Your task to perform on an android device: Search for vegetarian restaurants on Maps Image 0: 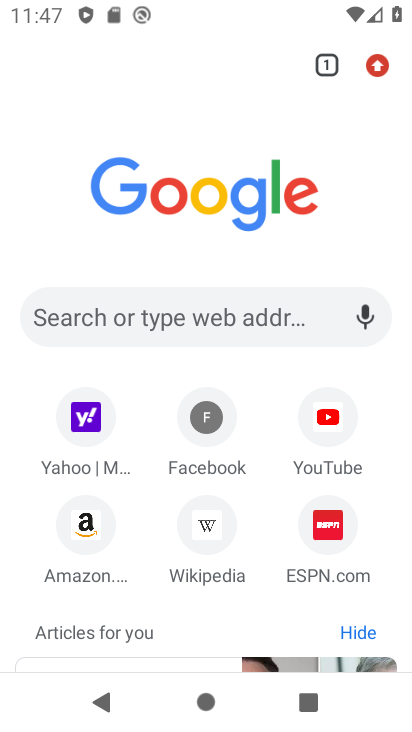
Step 0: press home button
Your task to perform on an android device: Search for vegetarian restaurants on Maps Image 1: 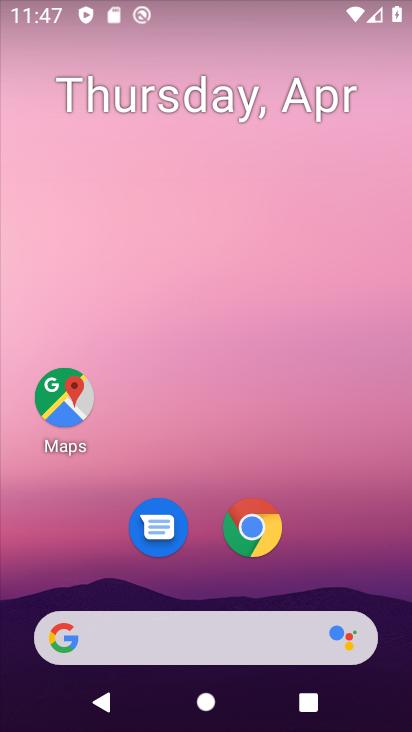
Step 1: click (74, 391)
Your task to perform on an android device: Search for vegetarian restaurants on Maps Image 2: 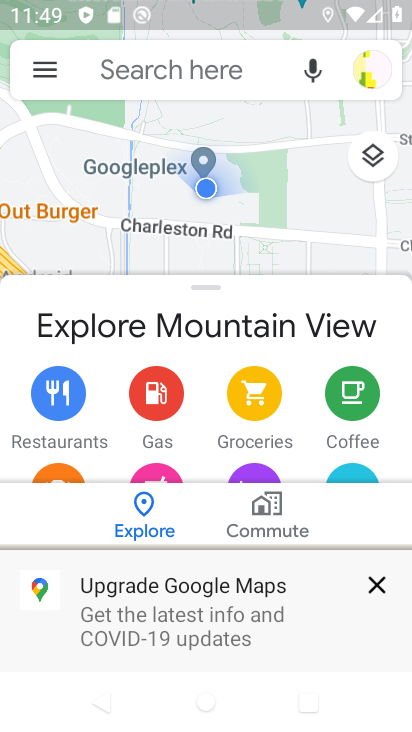
Step 2: click (218, 80)
Your task to perform on an android device: Search for vegetarian restaurants on Maps Image 3: 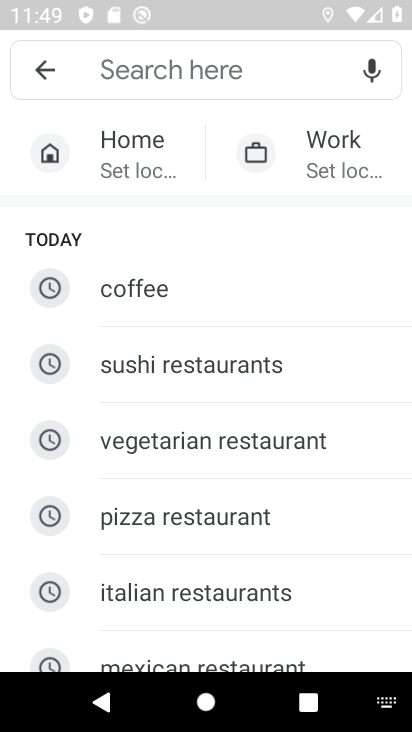
Step 3: type "vegetarian restaurants"
Your task to perform on an android device: Search for vegetarian restaurants on Maps Image 4: 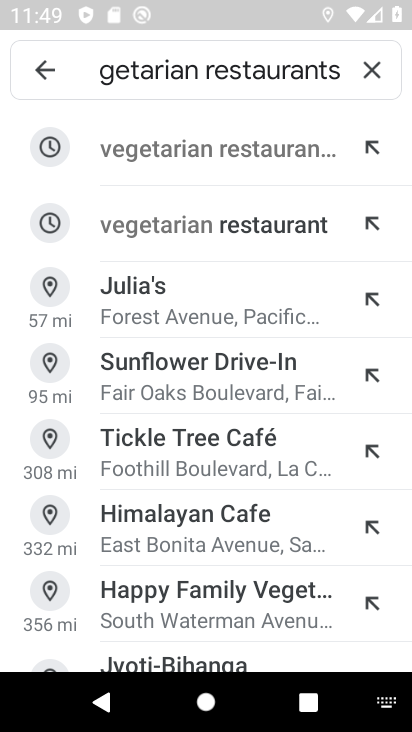
Step 4: click (257, 146)
Your task to perform on an android device: Search for vegetarian restaurants on Maps Image 5: 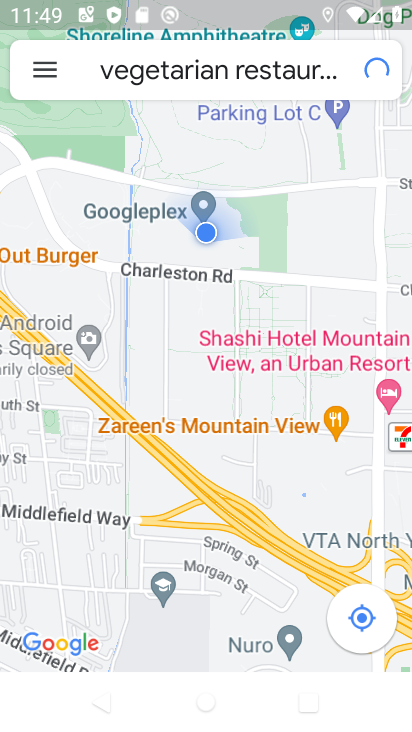
Step 5: task complete